Your task to perform on an android device: check battery use Image 0: 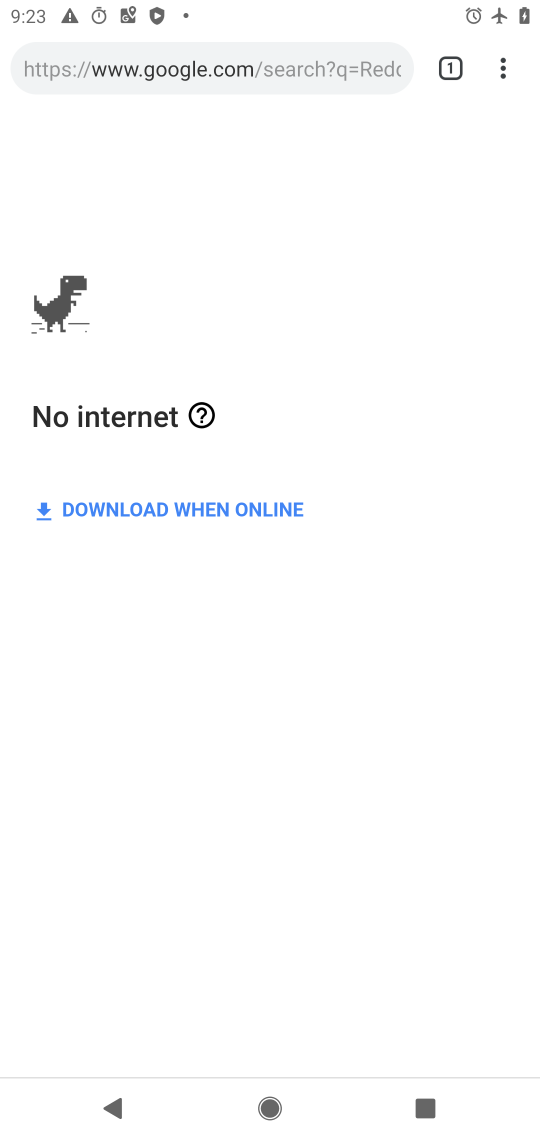
Step 0: press home button
Your task to perform on an android device: check battery use Image 1: 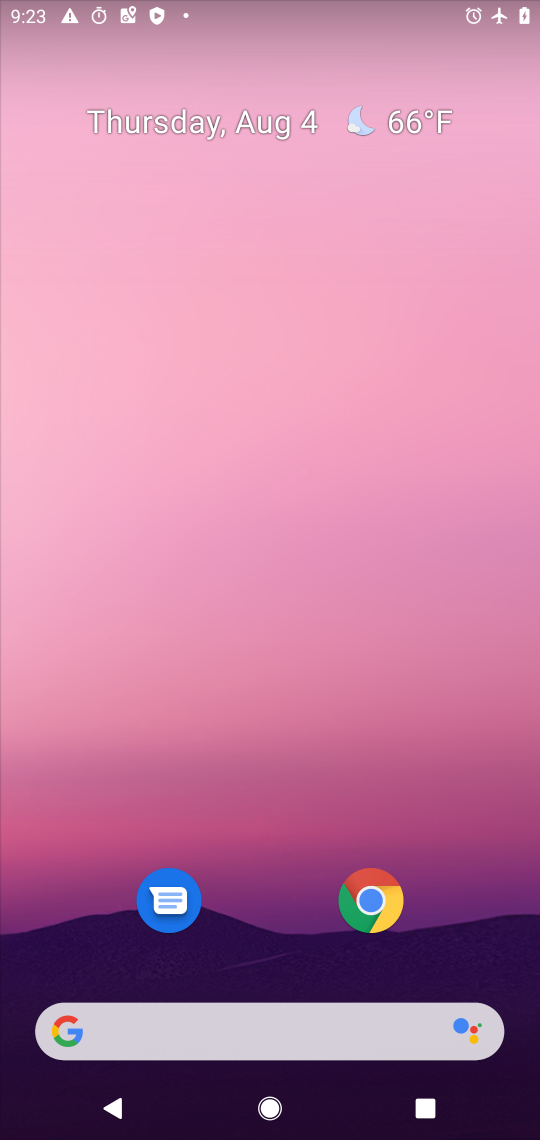
Step 1: drag from (233, 985) to (331, 215)
Your task to perform on an android device: check battery use Image 2: 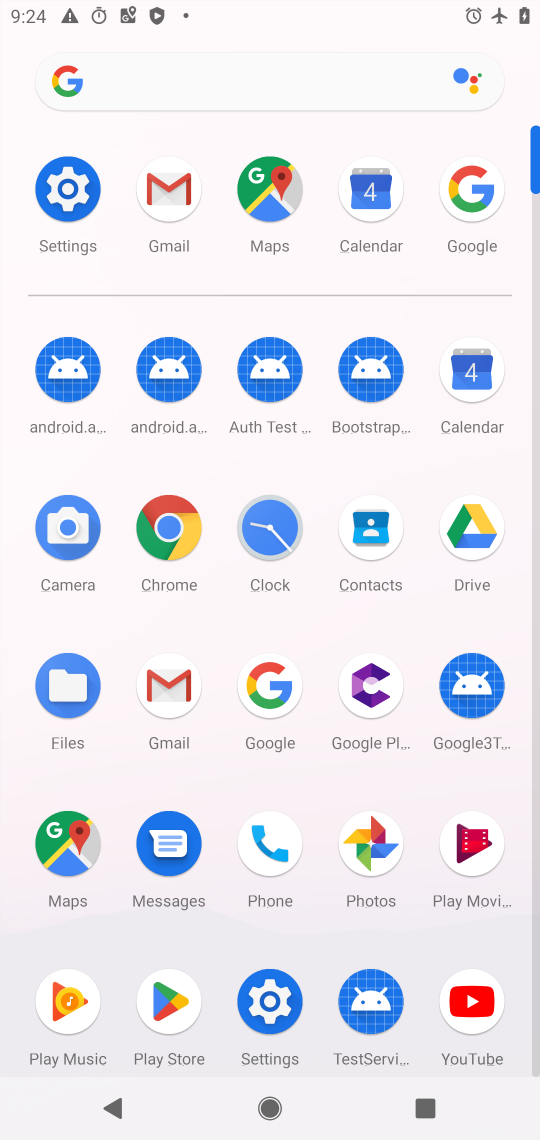
Step 2: click (71, 194)
Your task to perform on an android device: check battery use Image 3: 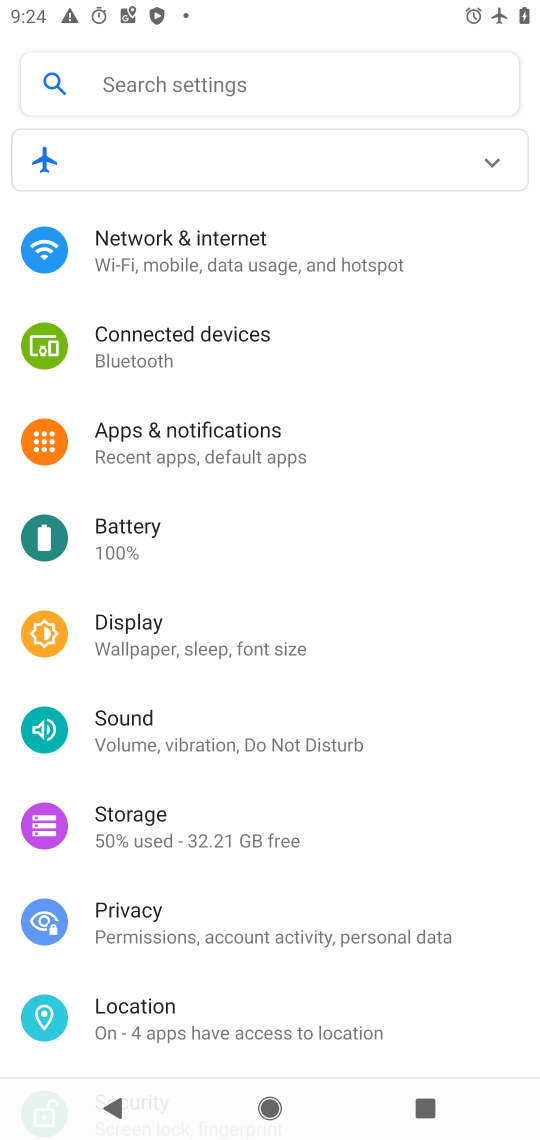
Step 3: click (130, 547)
Your task to perform on an android device: check battery use Image 4: 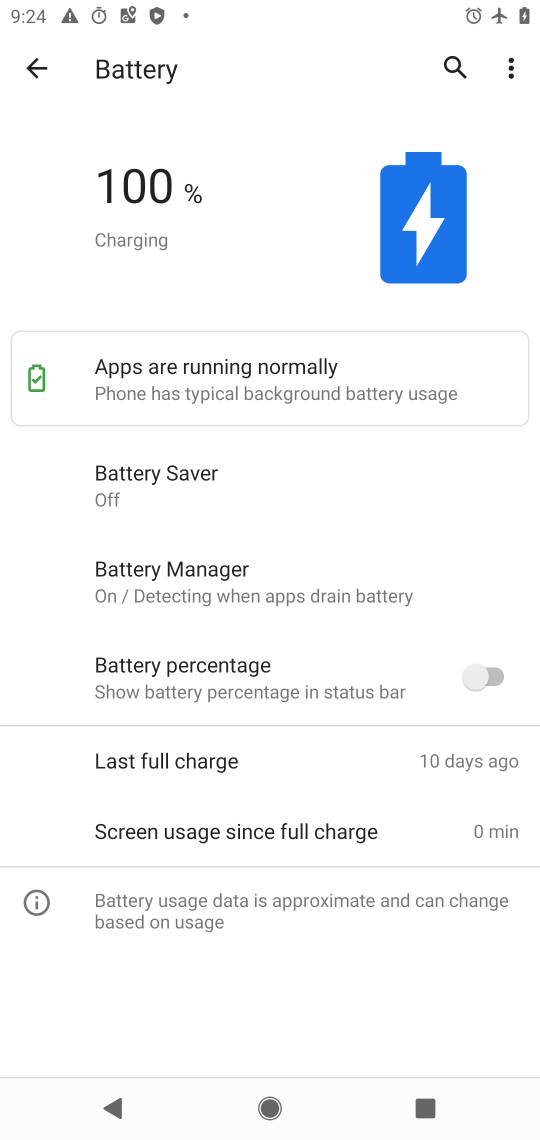
Step 4: click (519, 71)
Your task to perform on an android device: check battery use Image 5: 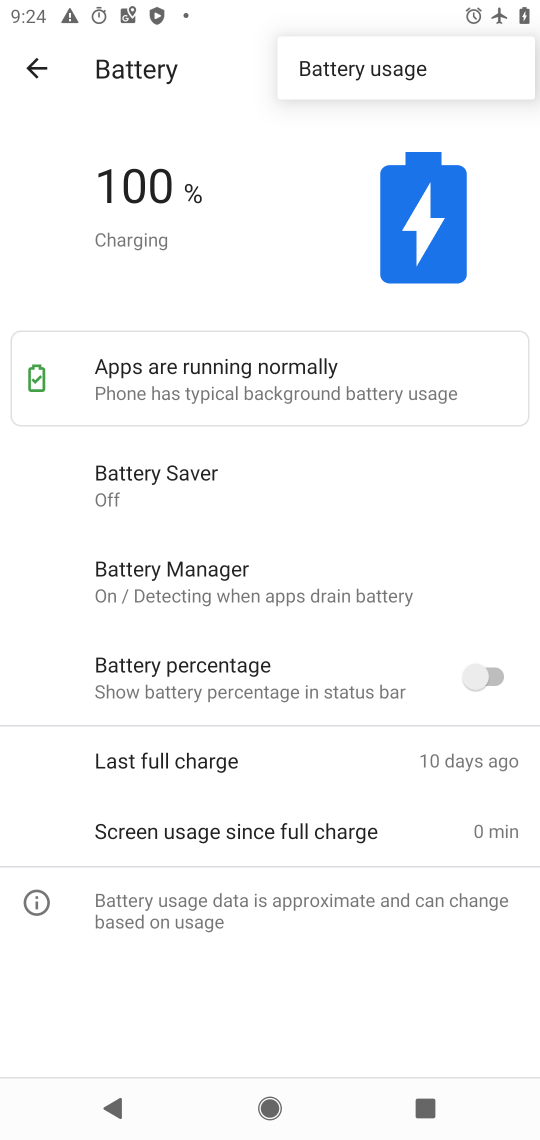
Step 5: click (380, 70)
Your task to perform on an android device: check battery use Image 6: 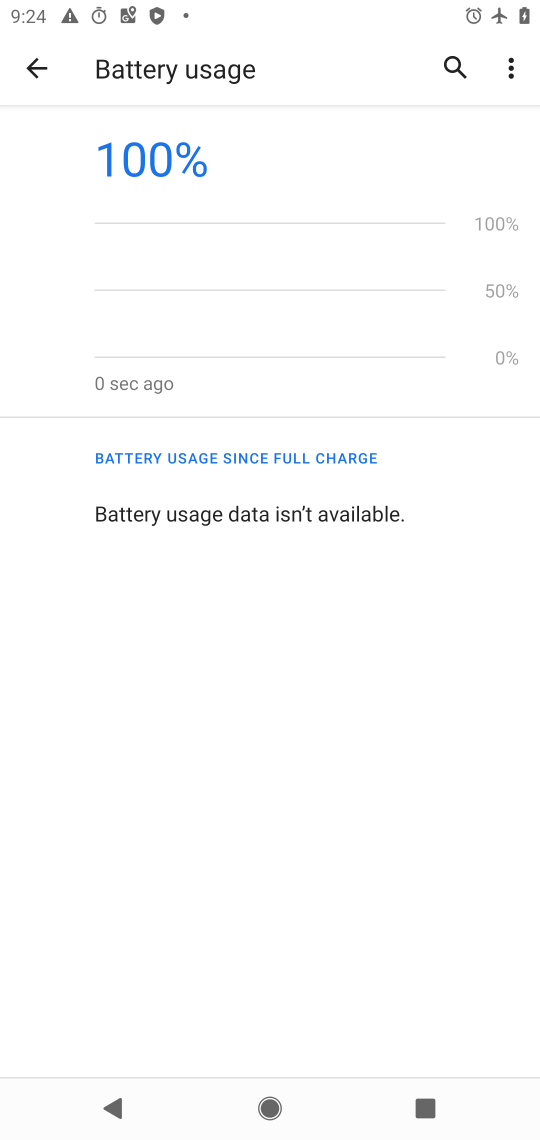
Step 6: task complete